Your task to perform on an android device: Open location settings Image 0: 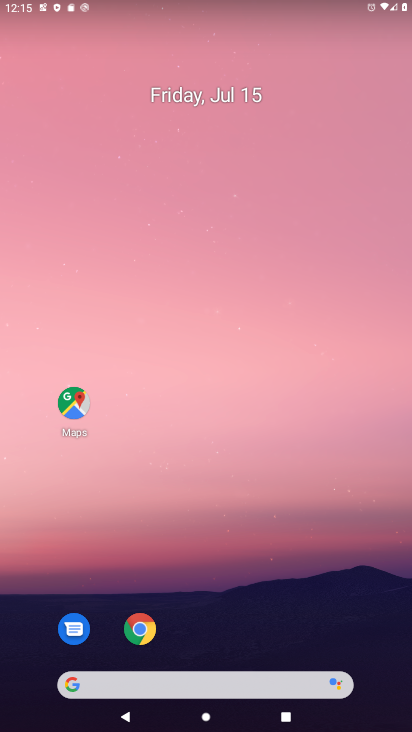
Step 0: press home button
Your task to perform on an android device: Open location settings Image 1: 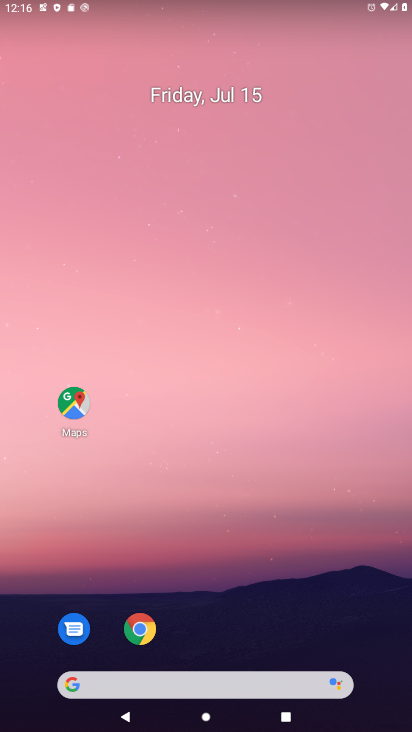
Step 1: drag from (241, 639) to (267, 55)
Your task to perform on an android device: Open location settings Image 2: 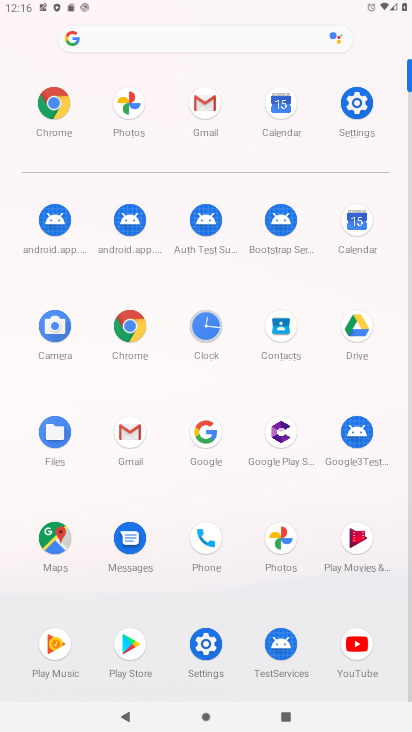
Step 2: click (358, 99)
Your task to perform on an android device: Open location settings Image 3: 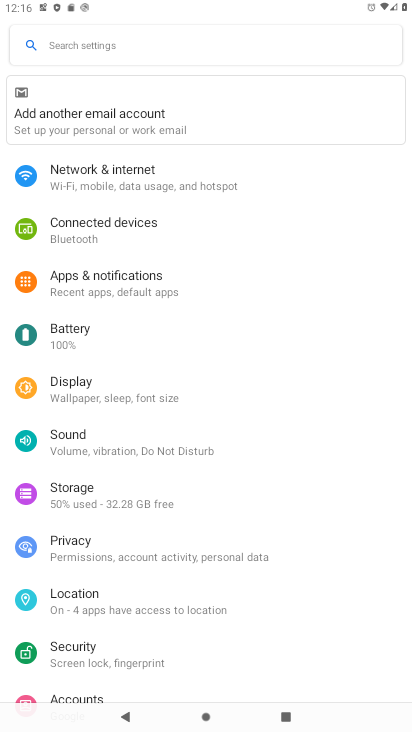
Step 3: click (73, 597)
Your task to perform on an android device: Open location settings Image 4: 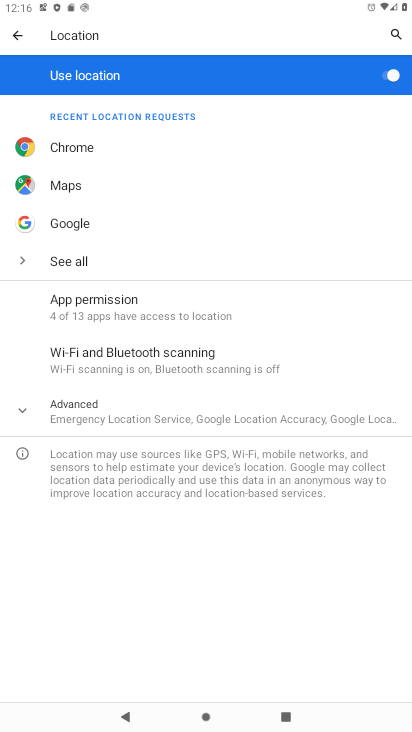
Step 4: task complete